Your task to perform on an android device: turn on the 12-hour format for clock Image 0: 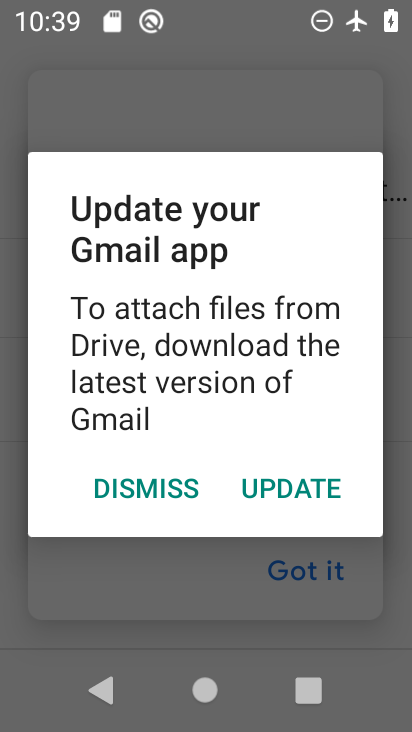
Step 0: press home button
Your task to perform on an android device: turn on the 12-hour format for clock Image 1: 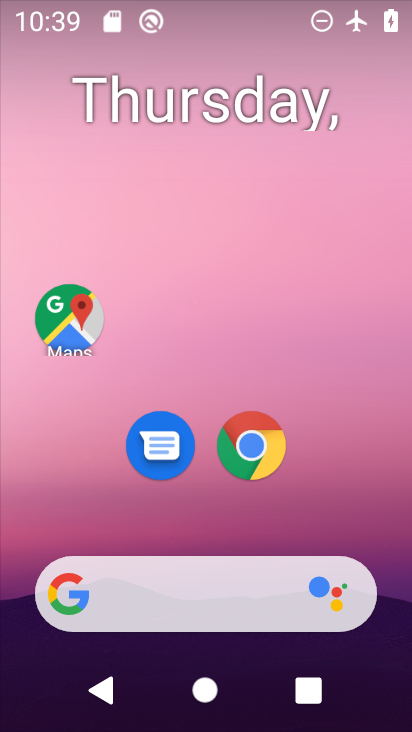
Step 1: drag from (213, 548) to (244, 20)
Your task to perform on an android device: turn on the 12-hour format for clock Image 2: 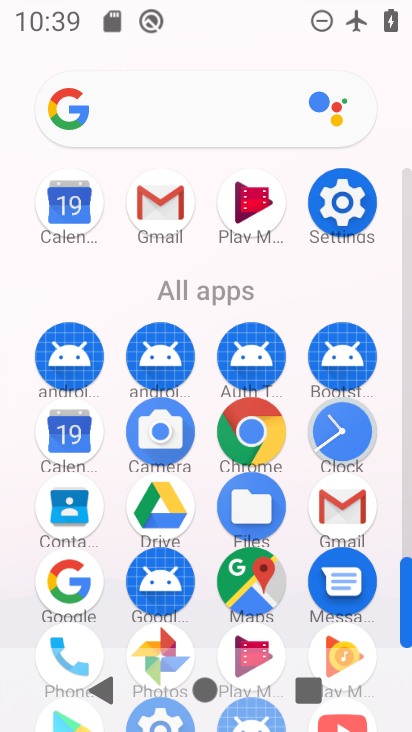
Step 2: click (334, 429)
Your task to perform on an android device: turn on the 12-hour format for clock Image 3: 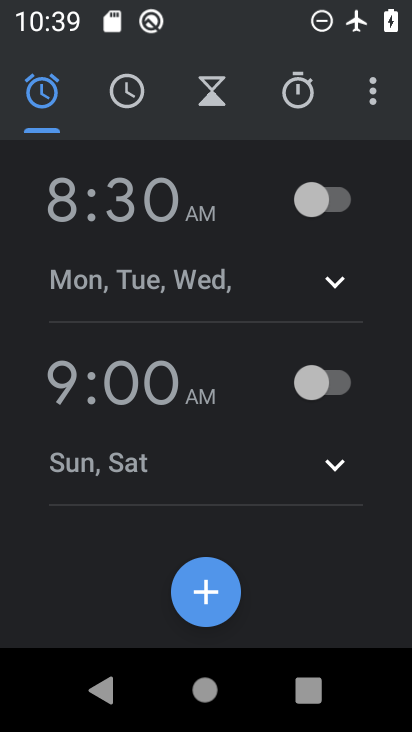
Step 3: click (371, 88)
Your task to perform on an android device: turn on the 12-hour format for clock Image 4: 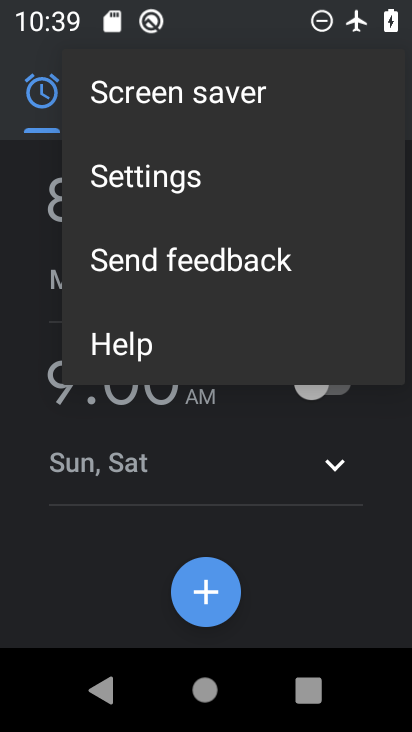
Step 4: click (198, 164)
Your task to perform on an android device: turn on the 12-hour format for clock Image 5: 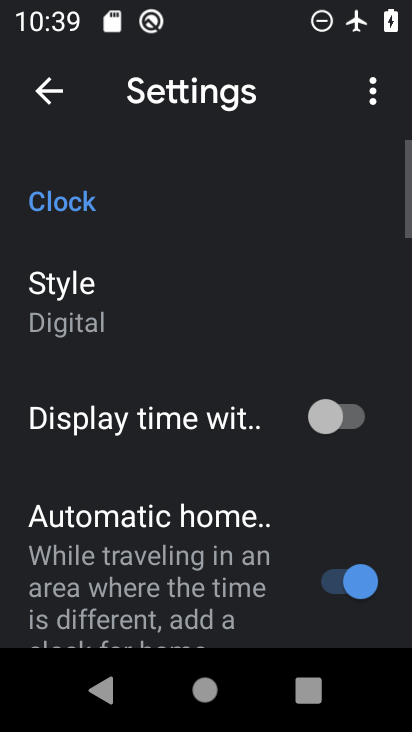
Step 5: drag from (228, 498) to (185, 47)
Your task to perform on an android device: turn on the 12-hour format for clock Image 6: 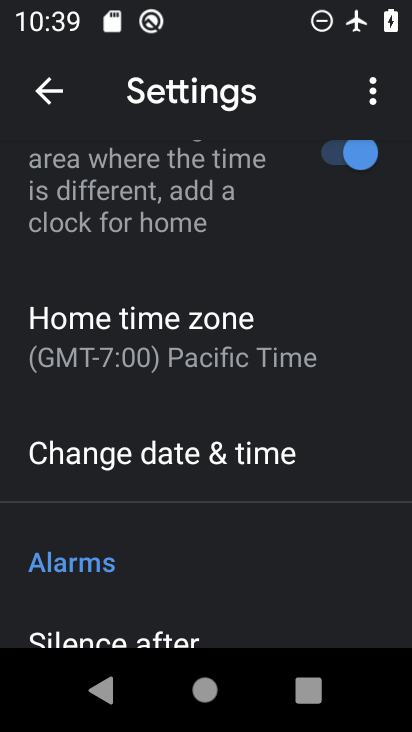
Step 6: click (171, 455)
Your task to perform on an android device: turn on the 12-hour format for clock Image 7: 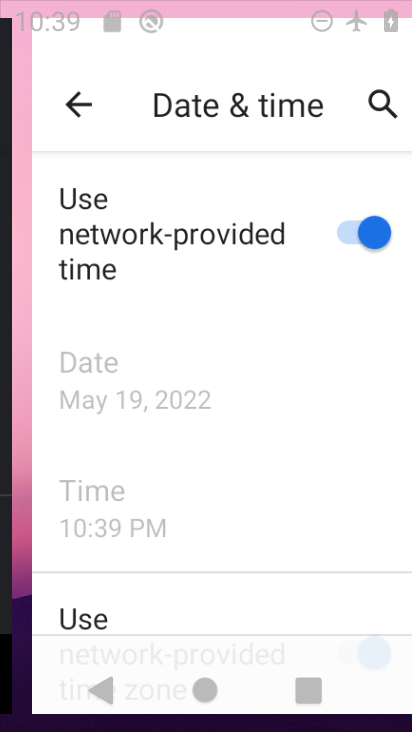
Step 7: task complete